Your task to perform on an android device: Check the weather Image 0: 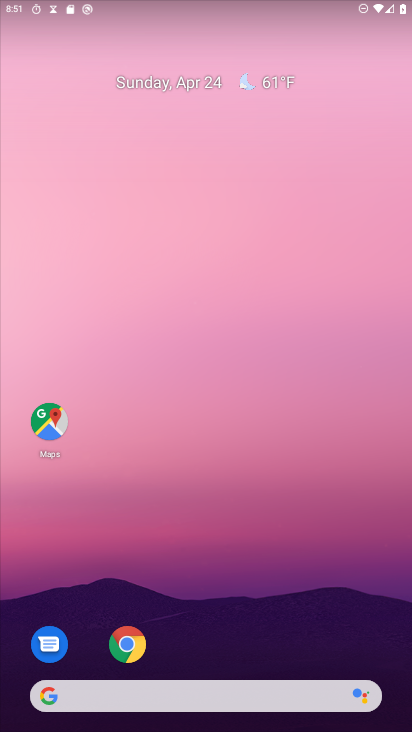
Step 0: drag from (182, 698) to (189, 1)
Your task to perform on an android device: Check the weather Image 1: 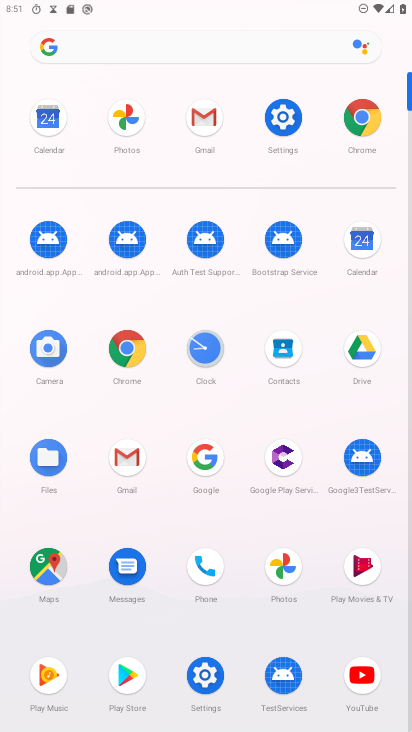
Step 1: press home button
Your task to perform on an android device: Check the weather Image 2: 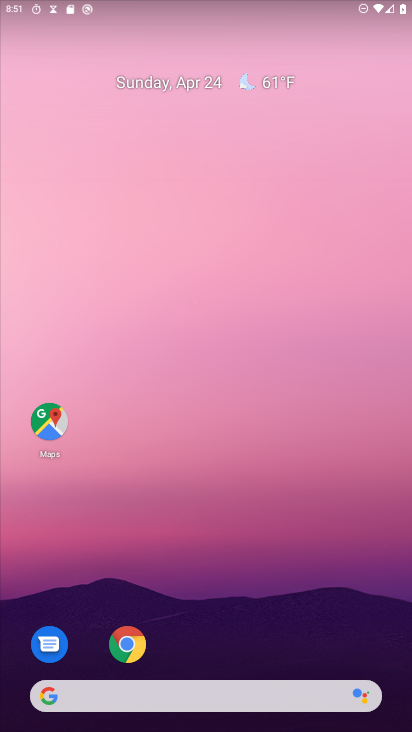
Step 2: click (269, 87)
Your task to perform on an android device: Check the weather Image 3: 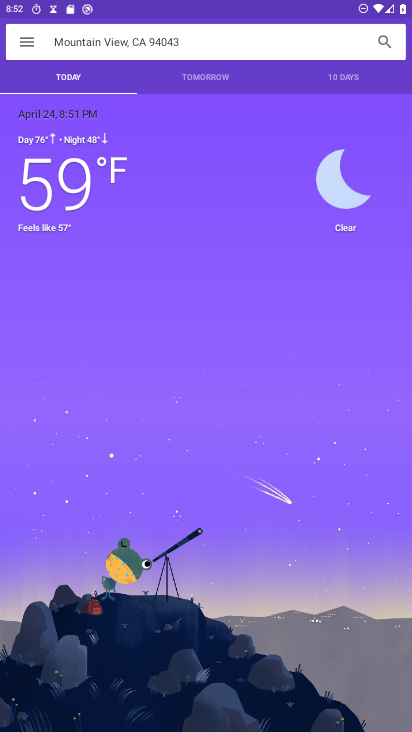
Step 3: task complete